Your task to perform on an android device: Clear all items from cart on walmart. Search for "jbl charge 4" on walmart, select the first entry, add it to the cart, then select checkout. Image 0: 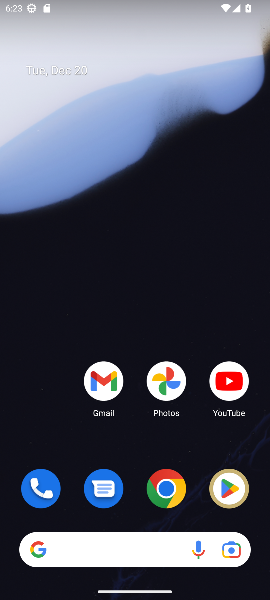
Step 0: press home button
Your task to perform on an android device: Clear all items from cart on walmart. Search for "jbl charge 4" on walmart, select the first entry, add it to the cart, then select checkout. Image 1: 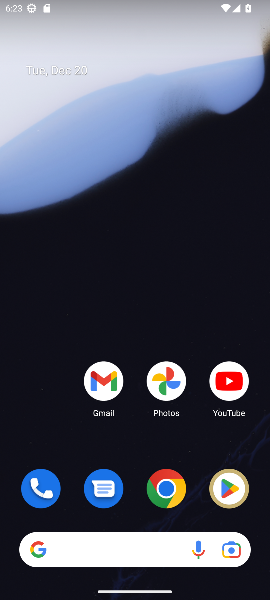
Step 1: click (52, 549)
Your task to perform on an android device: Clear all items from cart on walmart. Search for "jbl charge 4" on walmart, select the first entry, add it to the cart, then select checkout. Image 2: 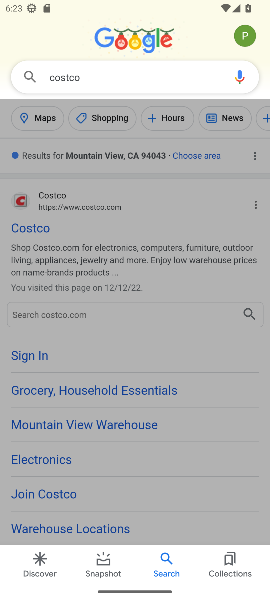
Step 2: click (120, 73)
Your task to perform on an android device: Clear all items from cart on walmart. Search for "jbl charge 4" on walmart, select the first entry, add it to the cart, then select checkout. Image 3: 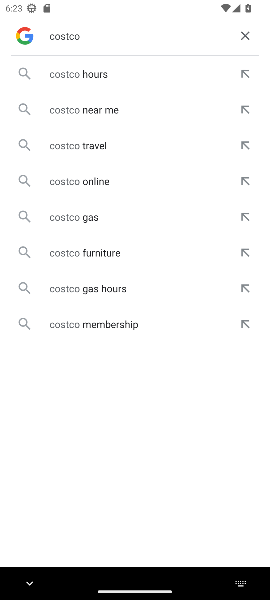
Step 3: click (240, 30)
Your task to perform on an android device: Clear all items from cart on walmart. Search for "jbl charge 4" on walmart, select the first entry, add it to the cart, then select checkout. Image 4: 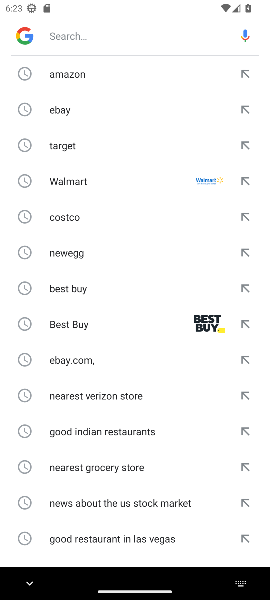
Step 4: press enter
Your task to perform on an android device: Clear all items from cart on walmart. Search for "jbl charge 4" on walmart, select the first entry, add it to the cart, then select checkout. Image 5: 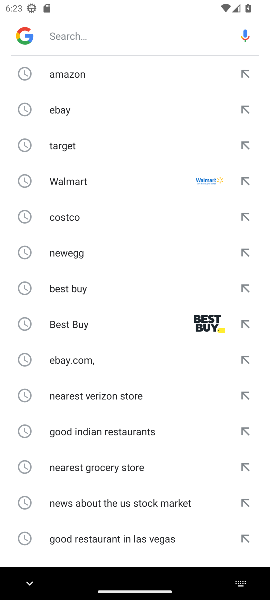
Step 5: type "walmart"
Your task to perform on an android device: Clear all items from cart on walmart. Search for "jbl charge 4" on walmart, select the first entry, add it to the cart, then select checkout. Image 6: 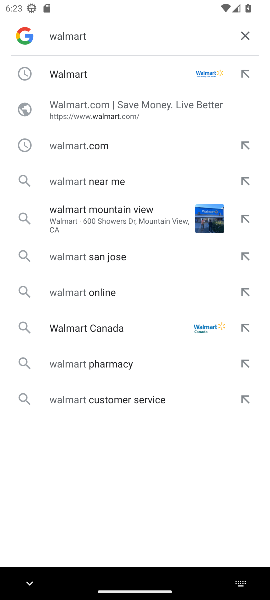
Step 6: press enter
Your task to perform on an android device: Clear all items from cart on walmart. Search for "jbl charge 4" on walmart, select the first entry, add it to the cart, then select checkout. Image 7: 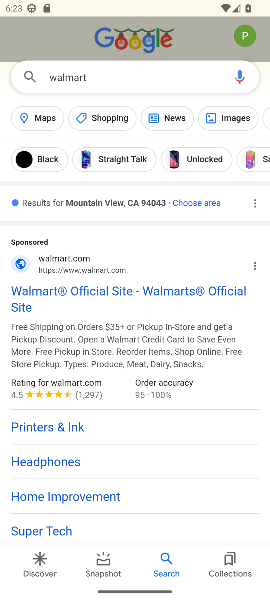
Step 7: click (127, 291)
Your task to perform on an android device: Clear all items from cart on walmart. Search for "jbl charge 4" on walmart, select the first entry, add it to the cart, then select checkout. Image 8: 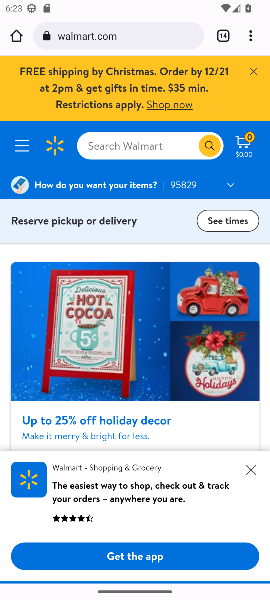
Step 8: click (114, 146)
Your task to perform on an android device: Clear all items from cart on walmart. Search for "jbl charge 4" on walmart, select the first entry, add it to the cart, then select checkout. Image 9: 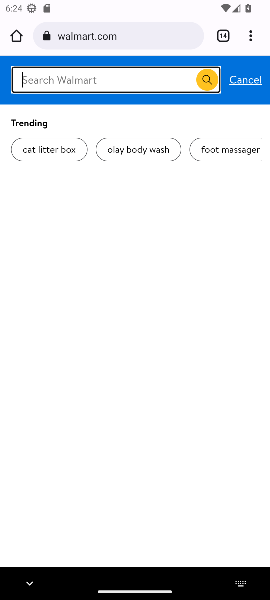
Step 9: type "jbl charge 4"
Your task to perform on an android device: Clear all items from cart on walmart. Search for "jbl charge 4" on walmart, select the first entry, add it to the cart, then select checkout. Image 10: 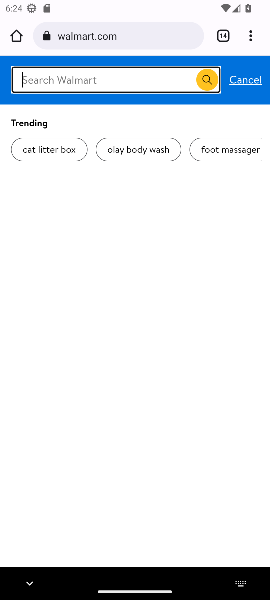
Step 10: press enter
Your task to perform on an android device: Clear all items from cart on walmart. Search for "jbl charge 4" on walmart, select the first entry, add it to the cart, then select checkout. Image 11: 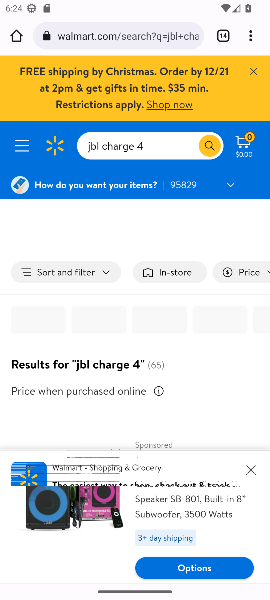
Step 11: click (249, 468)
Your task to perform on an android device: Clear all items from cart on walmart. Search for "jbl charge 4" on walmart, select the first entry, add it to the cart, then select checkout. Image 12: 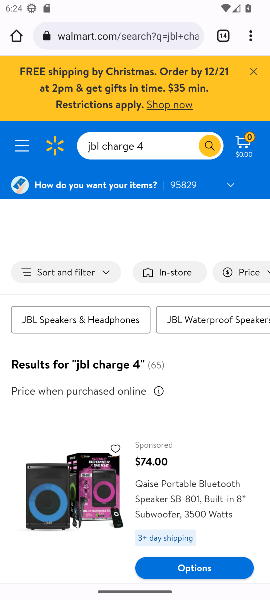
Step 12: drag from (188, 508) to (191, 221)
Your task to perform on an android device: Clear all items from cart on walmart. Search for "jbl charge 4" on walmart, select the first entry, add it to the cart, then select checkout. Image 13: 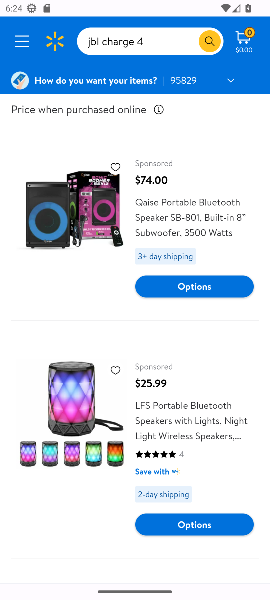
Step 13: drag from (103, 521) to (122, 226)
Your task to perform on an android device: Clear all items from cart on walmart. Search for "jbl charge 4" on walmart, select the first entry, add it to the cart, then select checkout. Image 14: 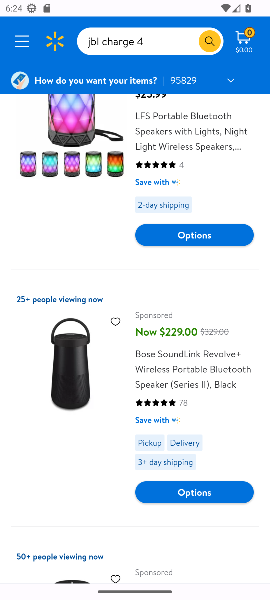
Step 14: drag from (111, 539) to (110, 200)
Your task to perform on an android device: Clear all items from cart on walmart. Search for "jbl charge 4" on walmart, select the first entry, add it to the cart, then select checkout. Image 15: 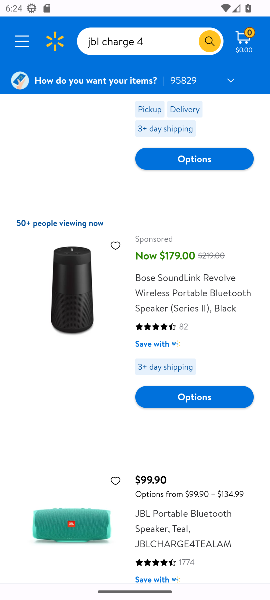
Step 15: drag from (109, 512) to (107, 271)
Your task to perform on an android device: Clear all items from cart on walmart. Search for "jbl charge 4" on walmart, select the first entry, add it to the cart, then select checkout. Image 16: 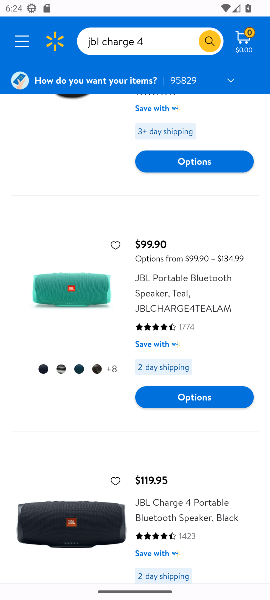
Step 16: drag from (162, 514) to (182, 264)
Your task to perform on an android device: Clear all items from cart on walmart. Search for "jbl charge 4" on walmart, select the first entry, add it to the cart, then select checkout. Image 17: 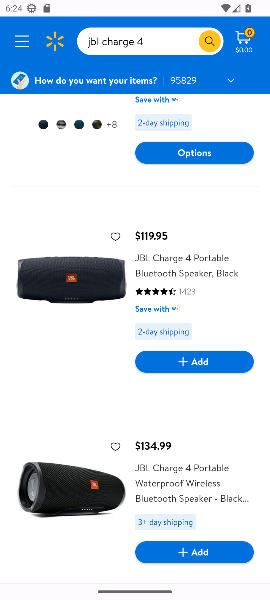
Step 17: click (186, 362)
Your task to perform on an android device: Clear all items from cart on walmart. Search for "jbl charge 4" on walmart, select the first entry, add it to the cart, then select checkout. Image 18: 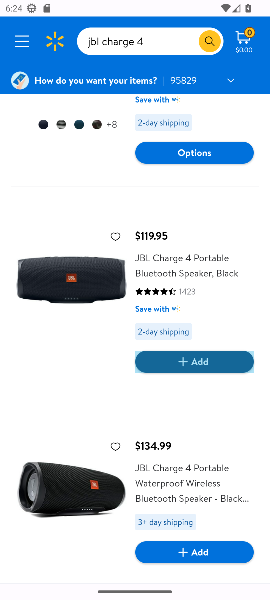
Step 18: click (199, 363)
Your task to perform on an android device: Clear all items from cart on walmart. Search for "jbl charge 4" on walmart, select the first entry, add it to the cart, then select checkout. Image 19: 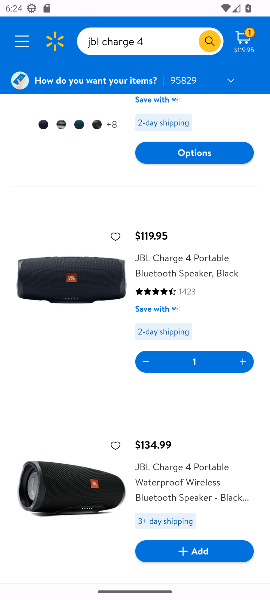
Step 19: task complete